Your task to perform on an android device: Search for vegetarian restaurants on Maps Image 0: 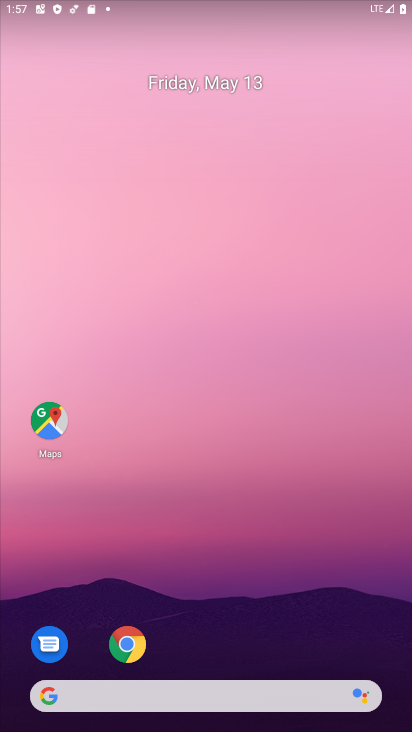
Step 0: drag from (286, 627) to (238, 118)
Your task to perform on an android device: Search for vegetarian restaurants on Maps Image 1: 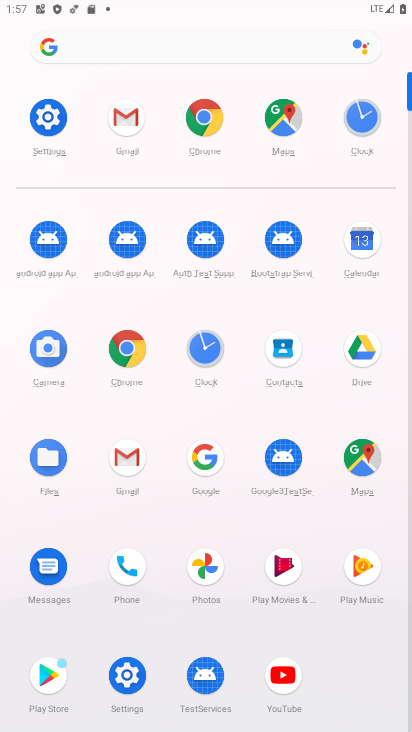
Step 1: click (355, 456)
Your task to perform on an android device: Search for vegetarian restaurants on Maps Image 2: 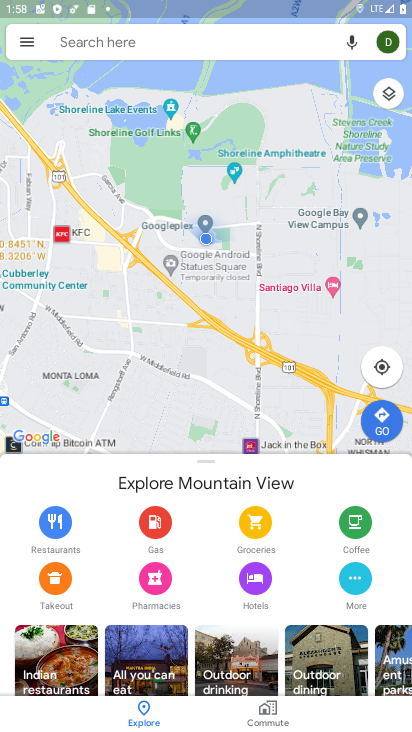
Step 2: click (152, 34)
Your task to perform on an android device: Search for vegetarian restaurants on Maps Image 3: 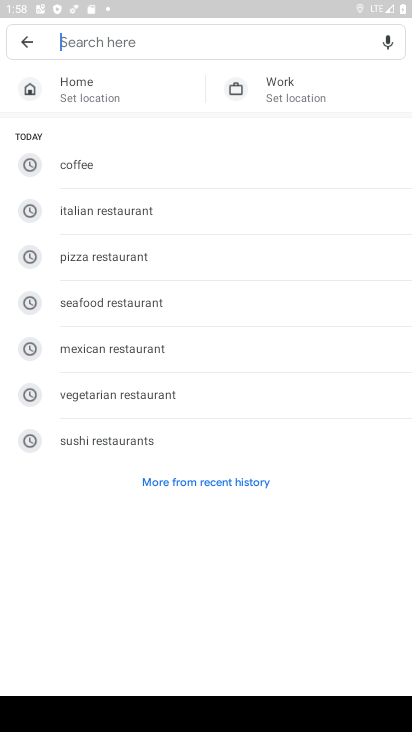
Step 3: click (164, 398)
Your task to perform on an android device: Search for vegetarian restaurants on Maps Image 4: 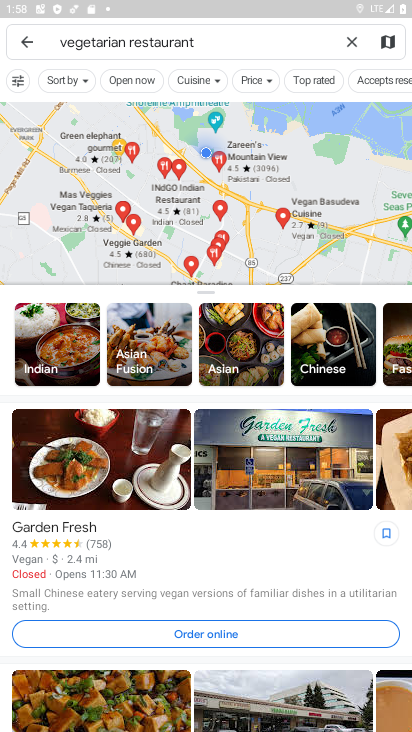
Step 4: task complete